Your task to perform on an android device: turn on bluetooth scan Image 0: 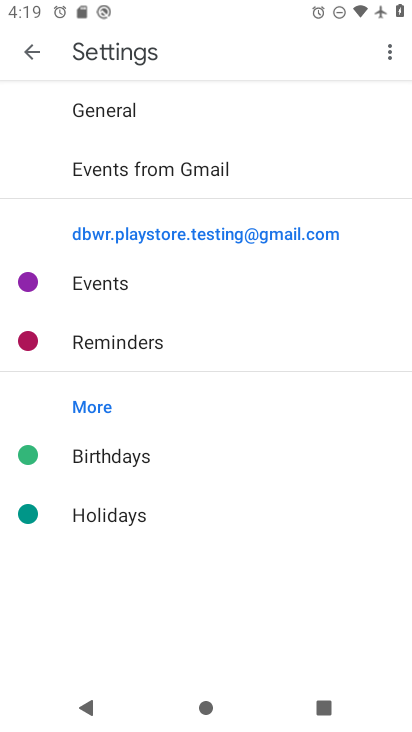
Step 0: press home button
Your task to perform on an android device: turn on bluetooth scan Image 1: 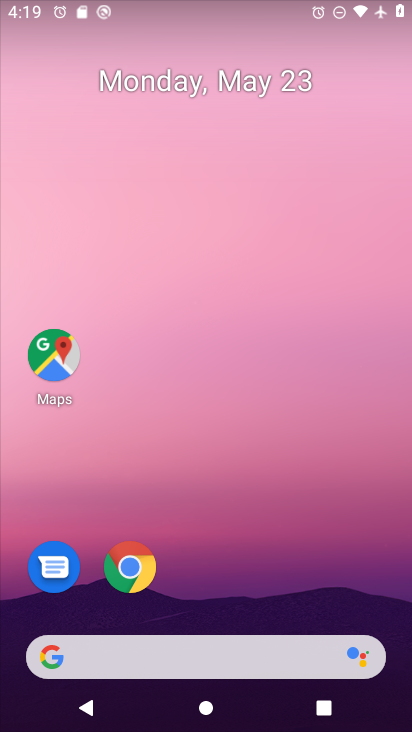
Step 1: drag from (381, 609) to (351, 57)
Your task to perform on an android device: turn on bluetooth scan Image 2: 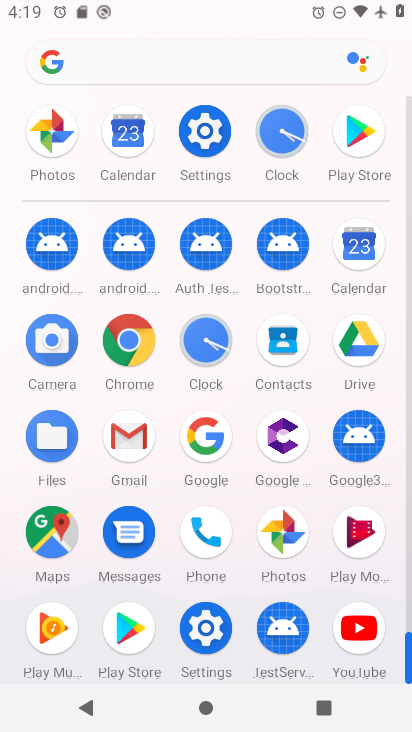
Step 2: click (202, 630)
Your task to perform on an android device: turn on bluetooth scan Image 3: 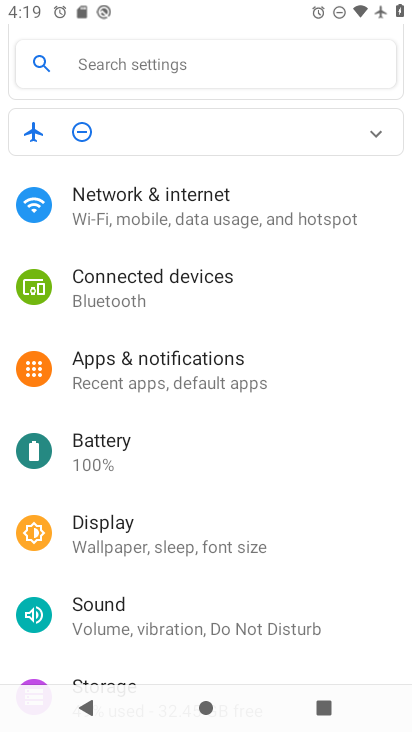
Step 3: drag from (148, 631) to (256, 177)
Your task to perform on an android device: turn on bluetooth scan Image 4: 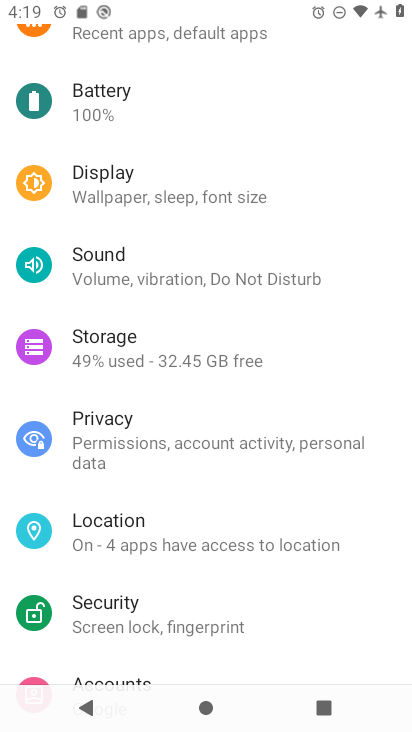
Step 4: click (116, 514)
Your task to perform on an android device: turn on bluetooth scan Image 5: 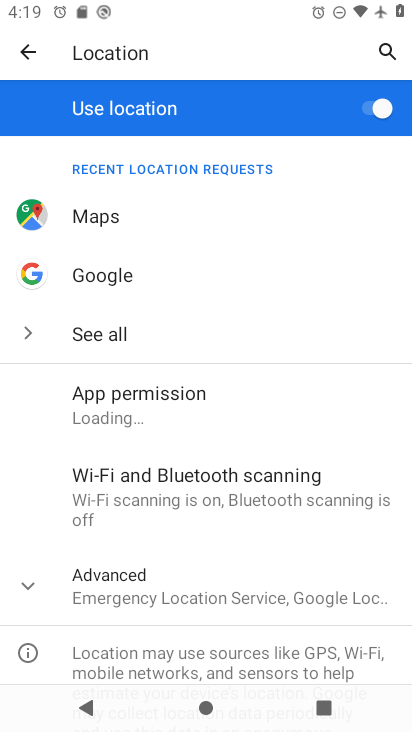
Step 5: click (156, 485)
Your task to perform on an android device: turn on bluetooth scan Image 6: 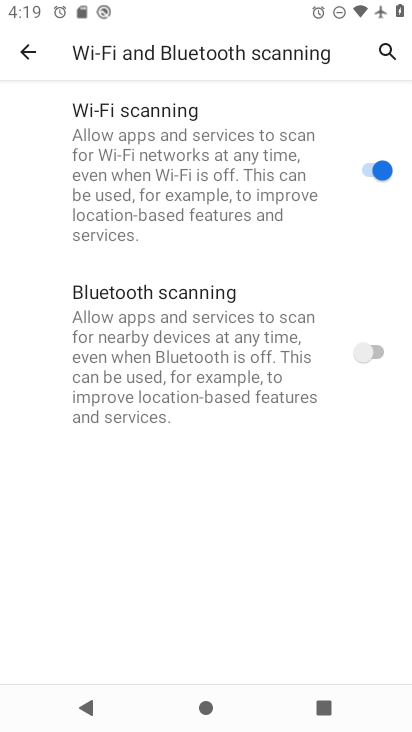
Step 6: click (380, 352)
Your task to perform on an android device: turn on bluetooth scan Image 7: 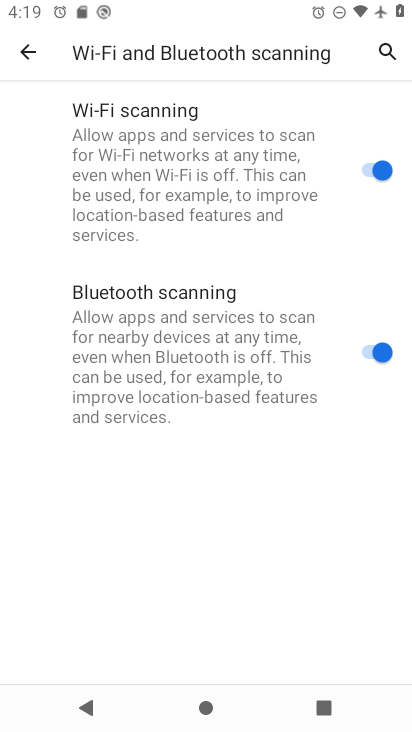
Step 7: task complete